Your task to perform on an android device: toggle improve location accuracy Image 0: 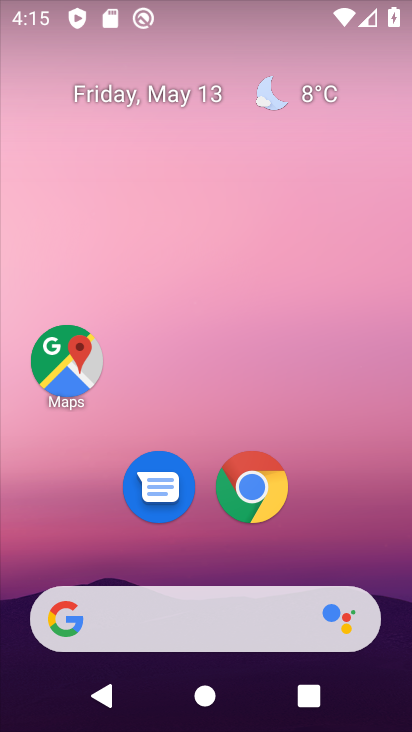
Step 0: drag from (381, 527) to (364, 29)
Your task to perform on an android device: toggle improve location accuracy Image 1: 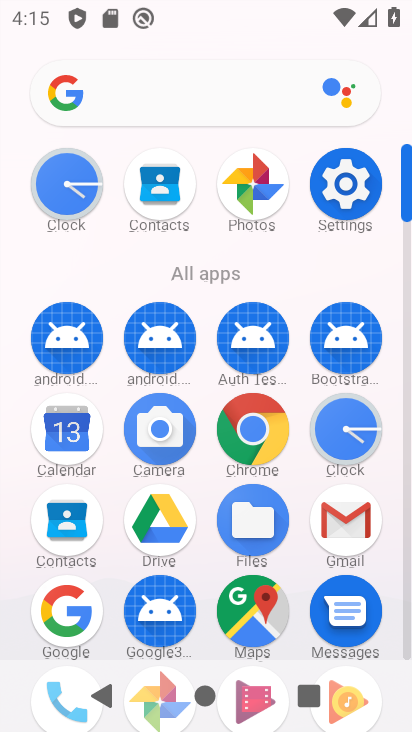
Step 1: click (347, 162)
Your task to perform on an android device: toggle improve location accuracy Image 2: 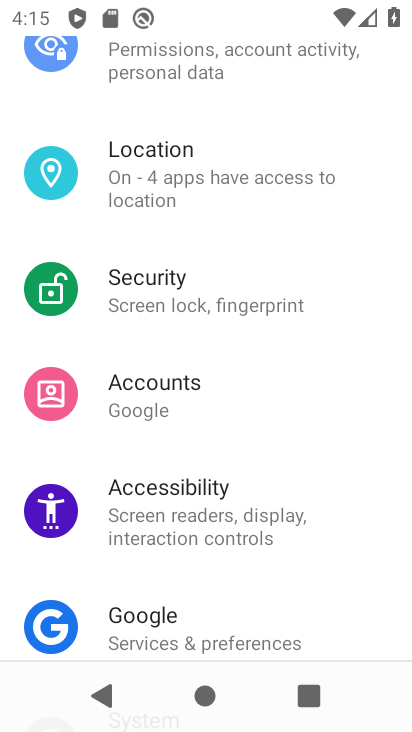
Step 2: click (175, 182)
Your task to perform on an android device: toggle improve location accuracy Image 3: 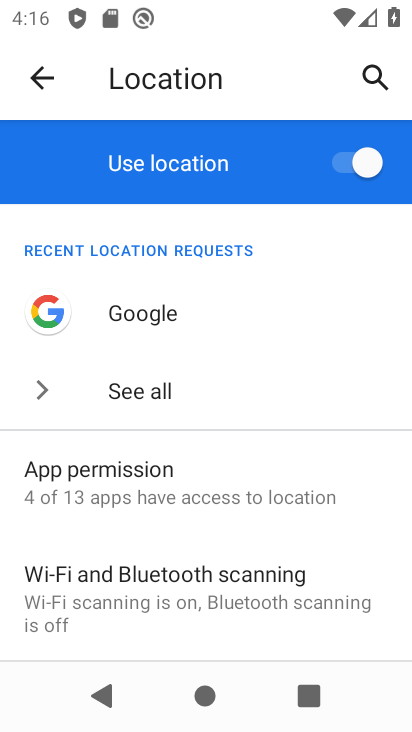
Step 3: drag from (229, 481) to (268, 118)
Your task to perform on an android device: toggle improve location accuracy Image 4: 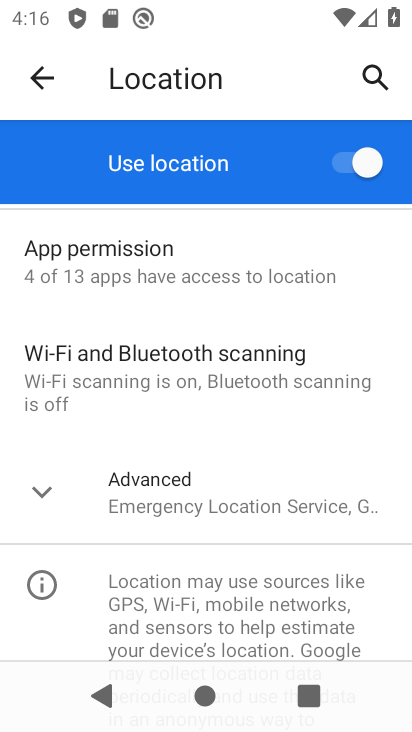
Step 4: click (198, 468)
Your task to perform on an android device: toggle improve location accuracy Image 5: 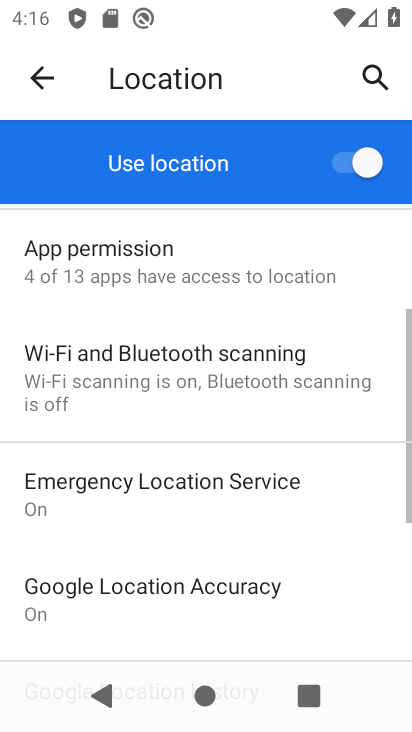
Step 5: drag from (218, 545) to (227, 329)
Your task to perform on an android device: toggle improve location accuracy Image 6: 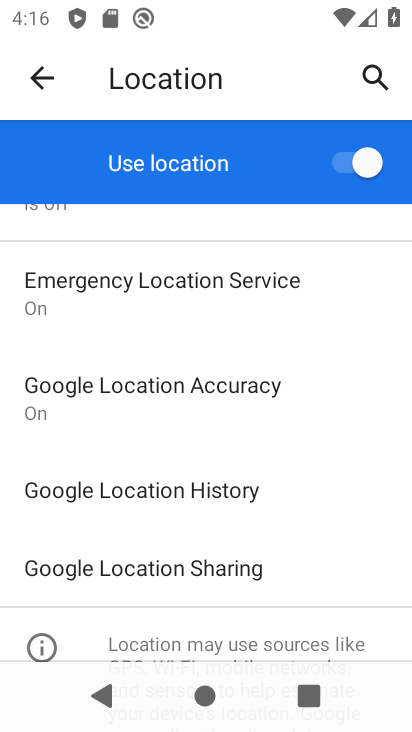
Step 6: click (241, 429)
Your task to perform on an android device: toggle improve location accuracy Image 7: 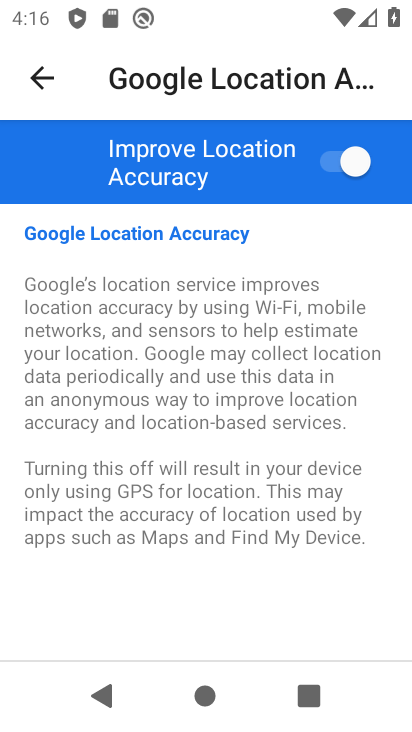
Step 7: task complete